Your task to perform on an android device: Do I have any events this weekend? Image 0: 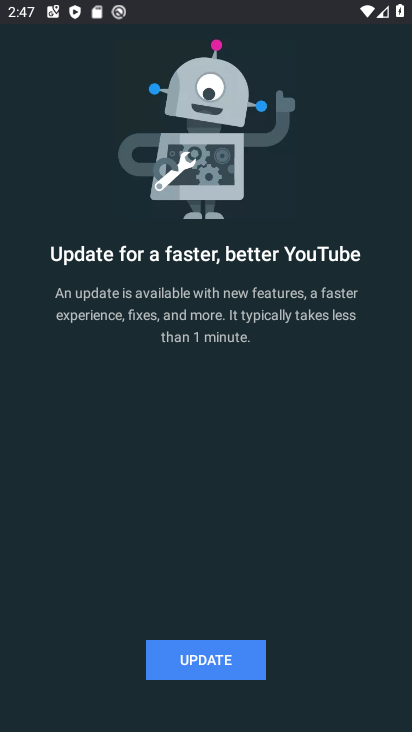
Step 0: press back button
Your task to perform on an android device: Do I have any events this weekend? Image 1: 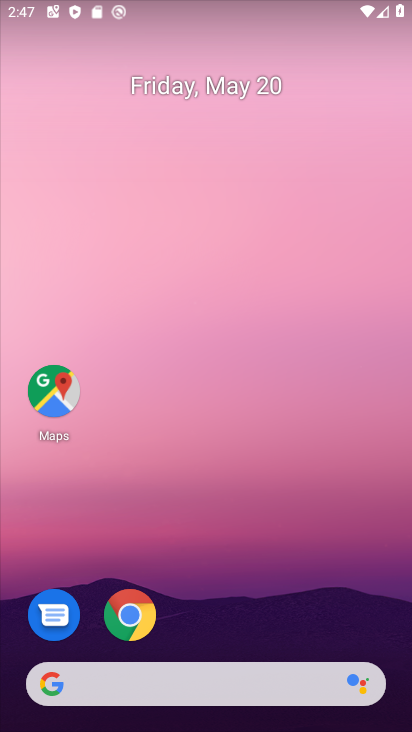
Step 1: drag from (220, 586) to (248, 223)
Your task to perform on an android device: Do I have any events this weekend? Image 2: 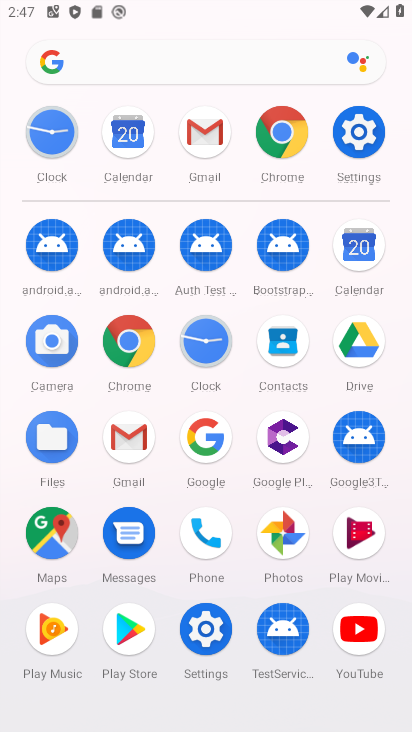
Step 2: click (363, 242)
Your task to perform on an android device: Do I have any events this weekend? Image 3: 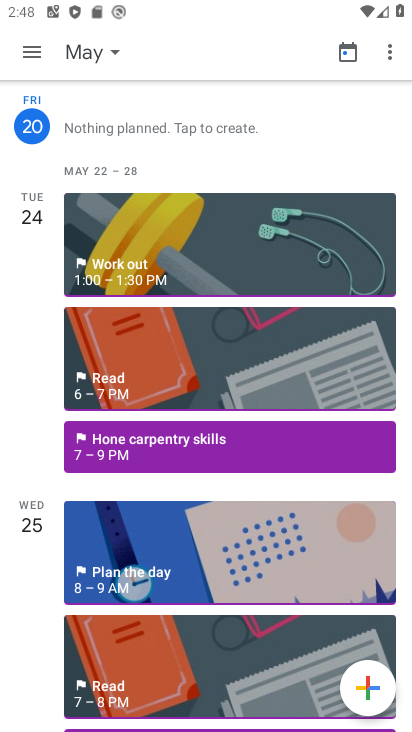
Step 3: task complete